Your task to perform on an android device: open app "Adobe Acrobat Reader" Image 0: 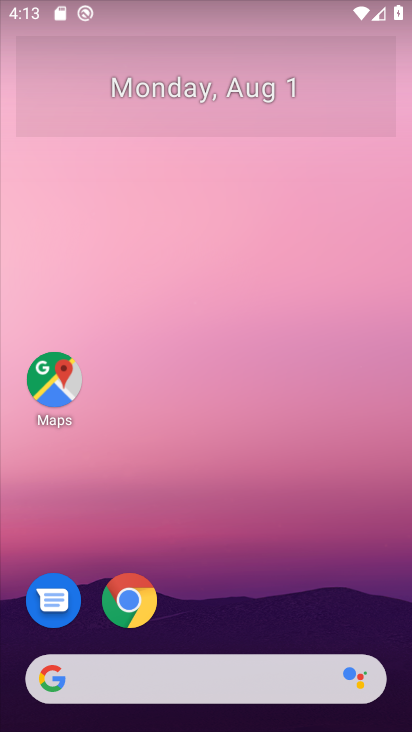
Step 0: press home button
Your task to perform on an android device: open app "Adobe Acrobat Reader" Image 1: 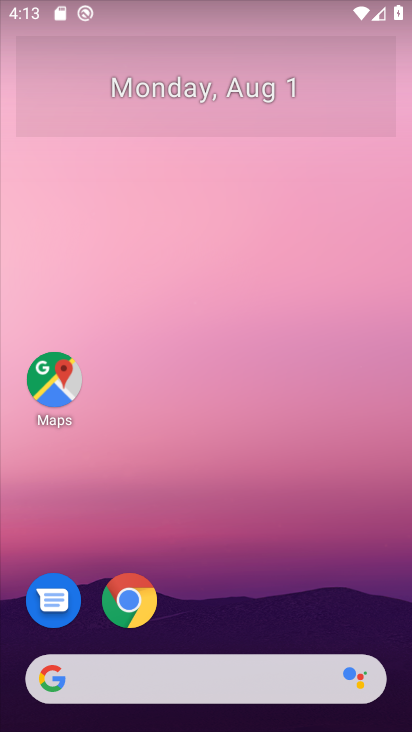
Step 1: drag from (291, 505) to (269, 45)
Your task to perform on an android device: open app "Adobe Acrobat Reader" Image 2: 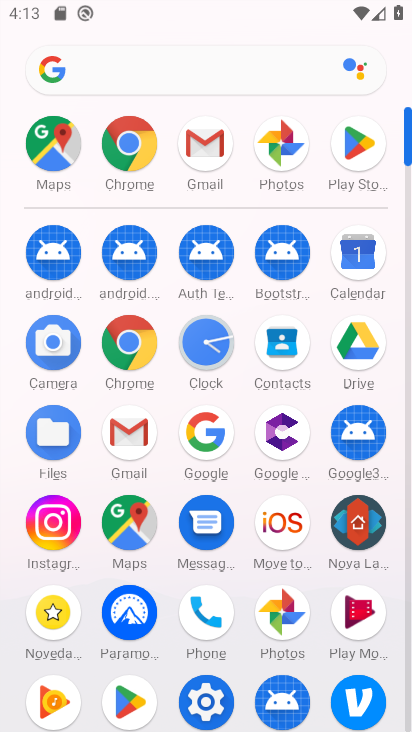
Step 2: click (349, 138)
Your task to perform on an android device: open app "Adobe Acrobat Reader" Image 3: 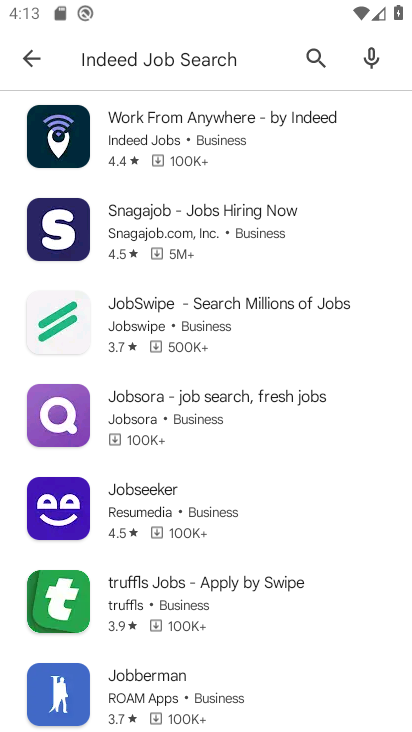
Step 3: click (254, 56)
Your task to perform on an android device: open app "Adobe Acrobat Reader" Image 4: 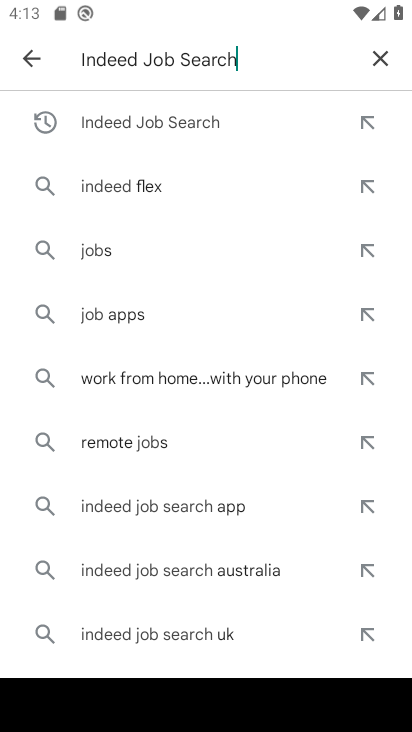
Step 4: click (377, 62)
Your task to perform on an android device: open app "Adobe Acrobat Reader" Image 5: 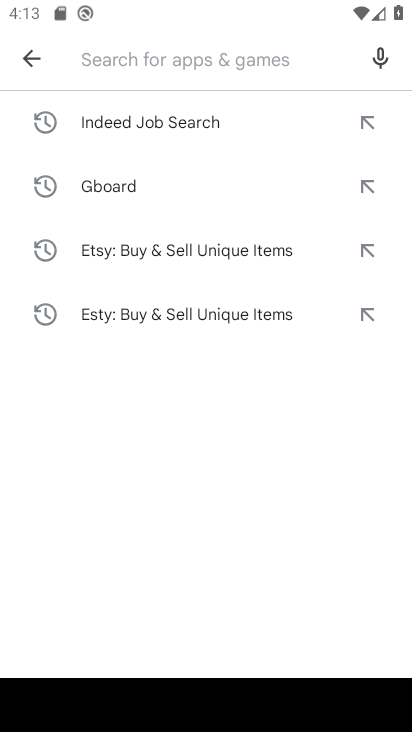
Step 5: type "Adobe Acrobat Reader"
Your task to perform on an android device: open app "Adobe Acrobat Reader" Image 6: 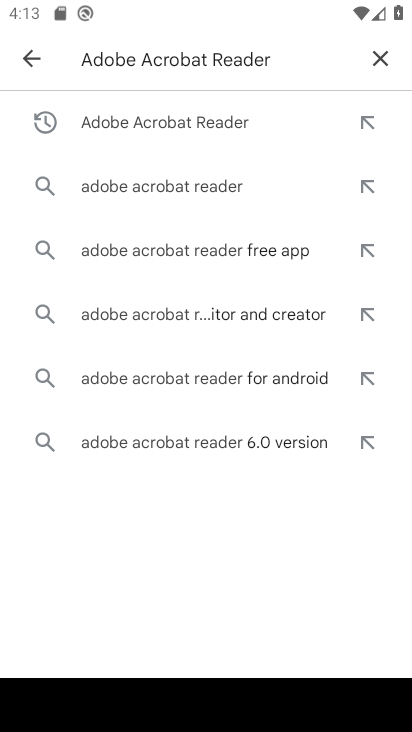
Step 6: press enter
Your task to perform on an android device: open app "Adobe Acrobat Reader" Image 7: 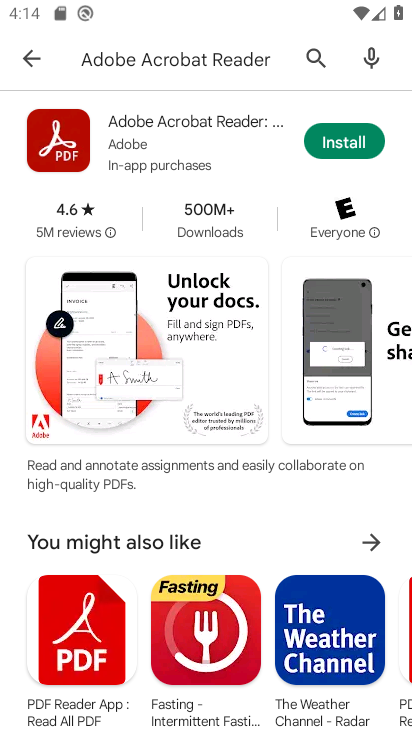
Step 7: task complete